Your task to perform on an android device: toggle pop-ups in chrome Image 0: 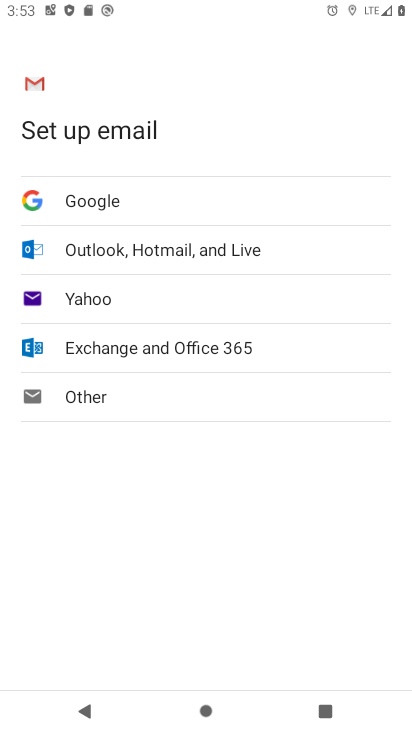
Step 0: press home button
Your task to perform on an android device: toggle pop-ups in chrome Image 1: 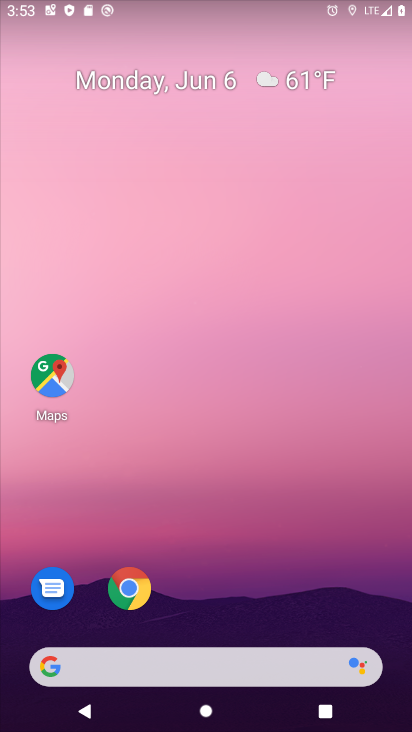
Step 1: click (122, 579)
Your task to perform on an android device: toggle pop-ups in chrome Image 2: 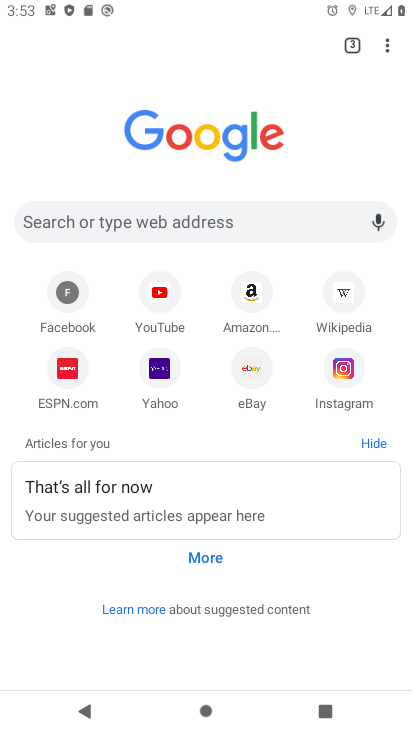
Step 2: click (386, 45)
Your task to perform on an android device: toggle pop-ups in chrome Image 3: 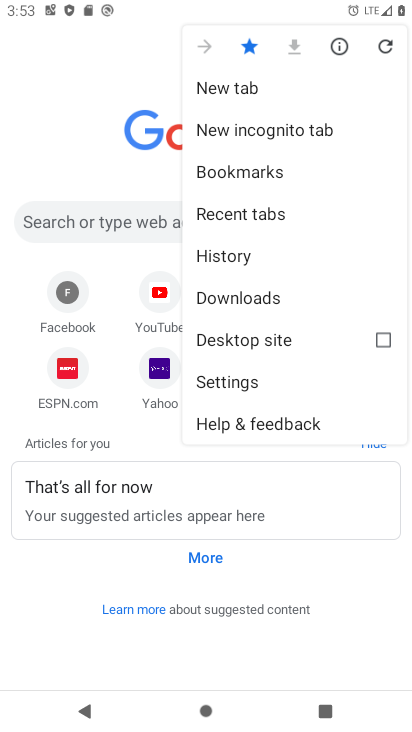
Step 3: click (253, 389)
Your task to perform on an android device: toggle pop-ups in chrome Image 4: 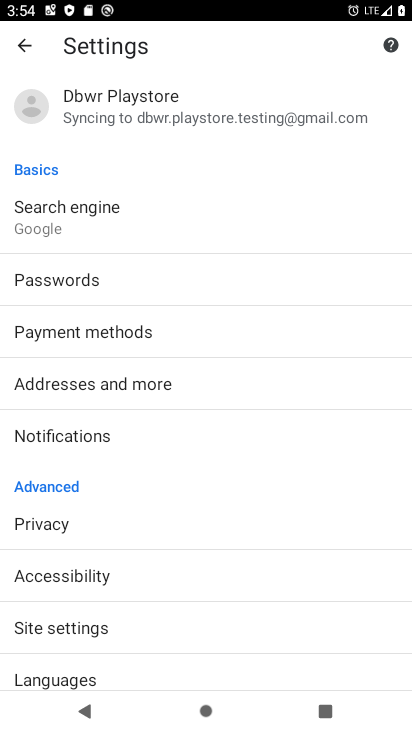
Step 4: click (191, 628)
Your task to perform on an android device: toggle pop-ups in chrome Image 5: 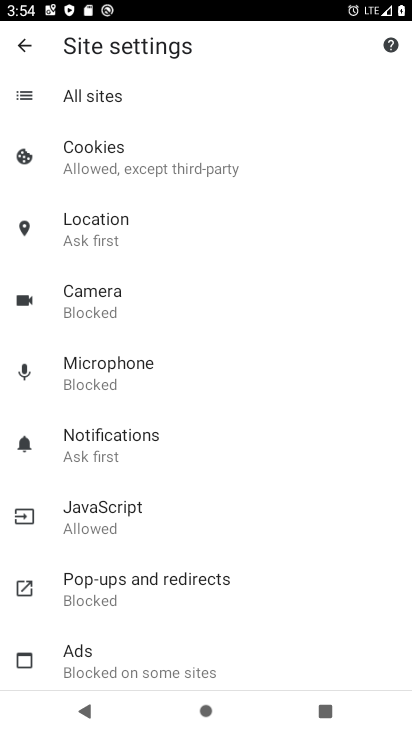
Step 5: click (188, 590)
Your task to perform on an android device: toggle pop-ups in chrome Image 6: 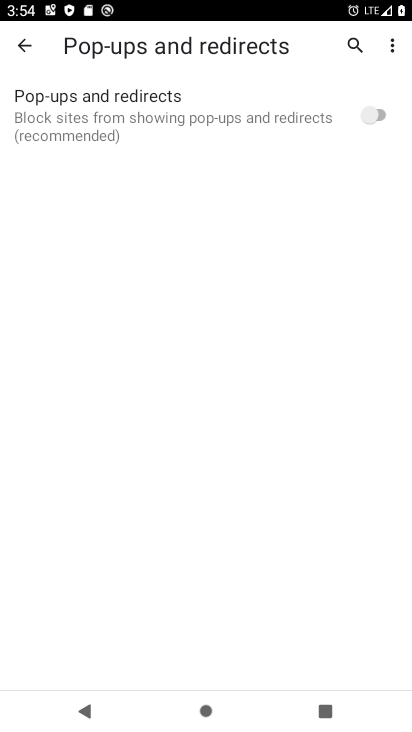
Step 6: click (371, 126)
Your task to perform on an android device: toggle pop-ups in chrome Image 7: 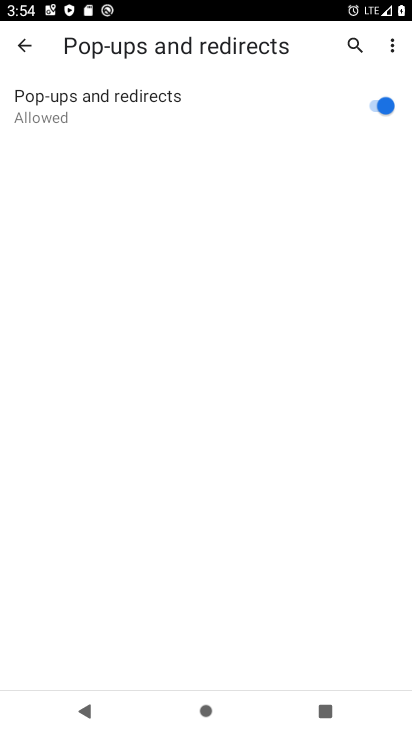
Step 7: task complete